Your task to perform on an android device: When is my next meeting? Image 0: 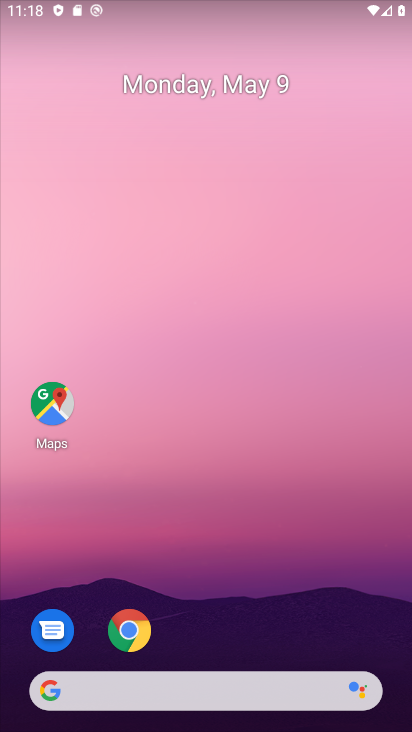
Step 0: drag from (344, 570) to (156, 6)
Your task to perform on an android device: When is my next meeting? Image 1: 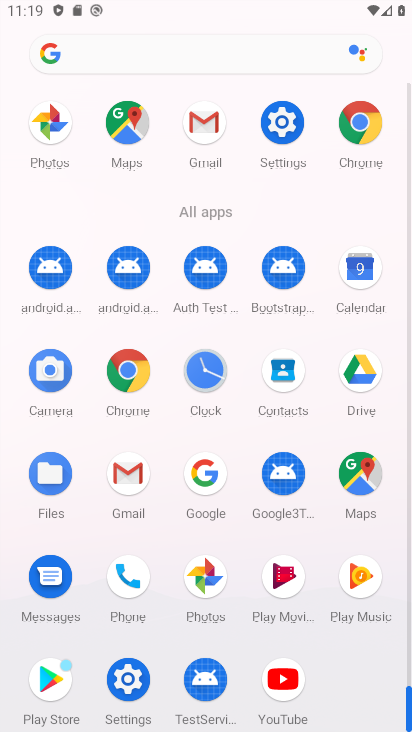
Step 1: drag from (3, 547) to (7, 231)
Your task to perform on an android device: When is my next meeting? Image 2: 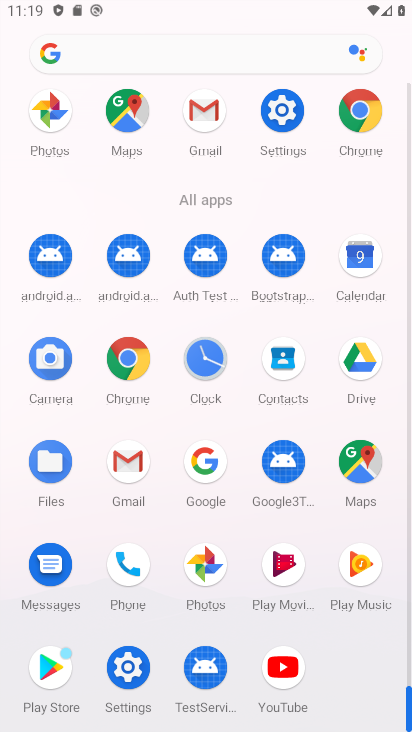
Step 2: drag from (16, 208) to (17, 310)
Your task to perform on an android device: When is my next meeting? Image 3: 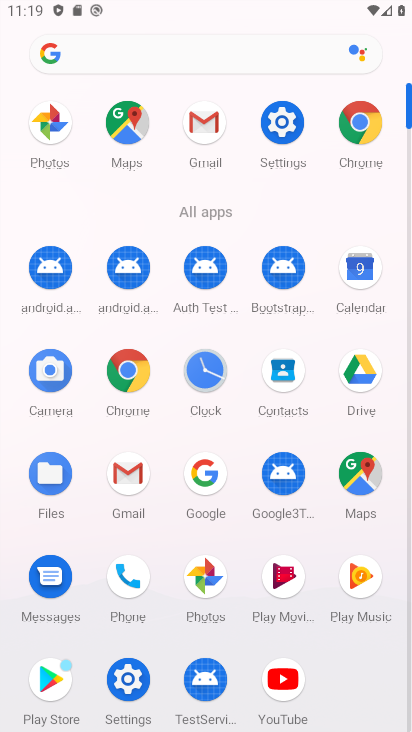
Step 3: click (352, 262)
Your task to perform on an android device: When is my next meeting? Image 4: 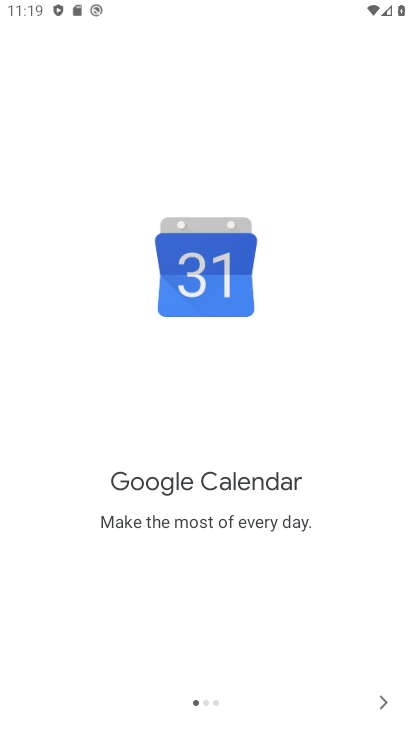
Step 4: click (378, 701)
Your task to perform on an android device: When is my next meeting? Image 5: 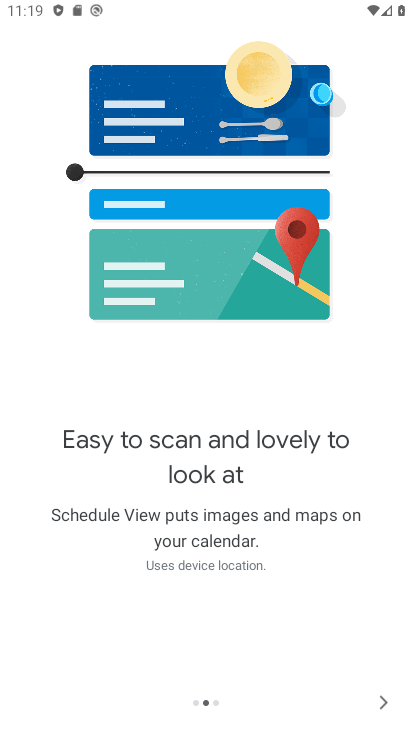
Step 5: click (378, 701)
Your task to perform on an android device: When is my next meeting? Image 6: 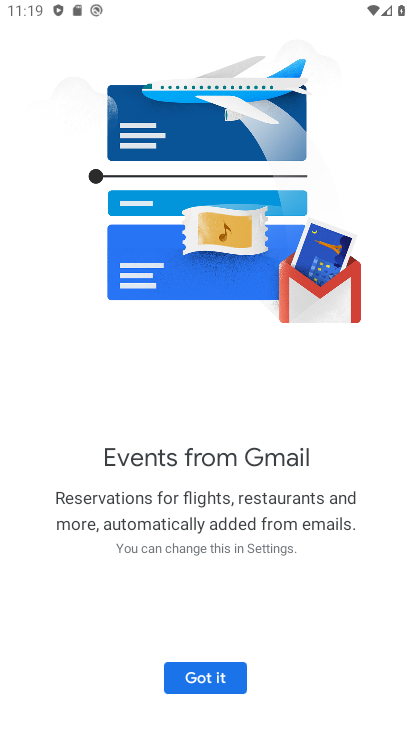
Step 6: click (225, 673)
Your task to perform on an android device: When is my next meeting? Image 7: 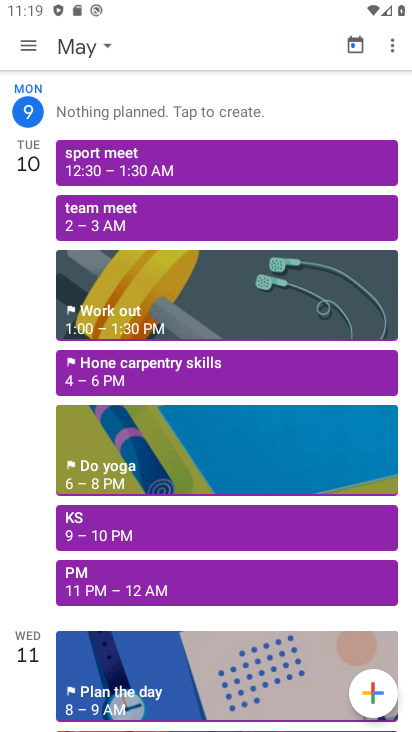
Step 7: click (19, 45)
Your task to perform on an android device: When is my next meeting? Image 8: 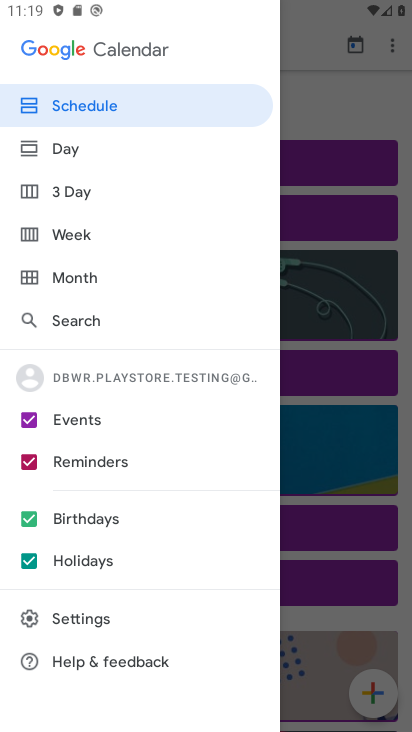
Step 8: click (28, 564)
Your task to perform on an android device: When is my next meeting? Image 9: 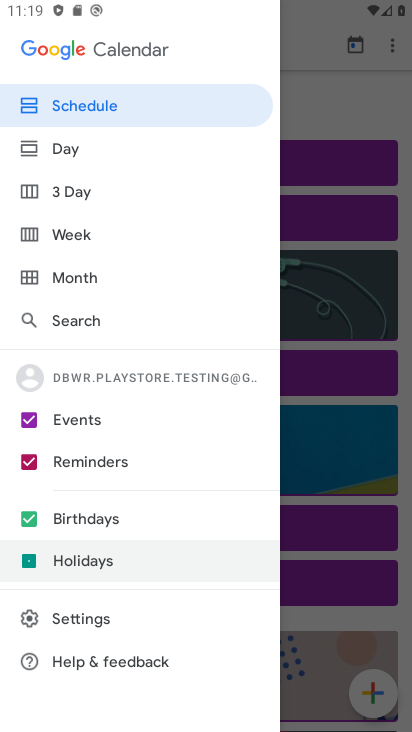
Step 9: click (31, 518)
Your task to perform on an android device: When is my next meeting? Image 10: 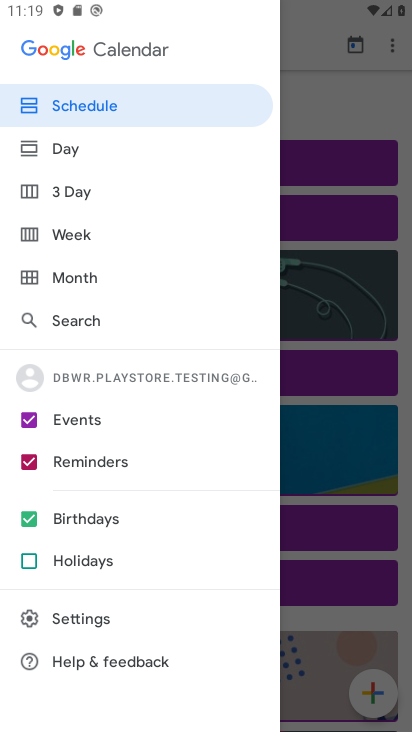
Step 10: click (31, 517)
Your task to perform on an android device: When is my next meeting? Image 11: 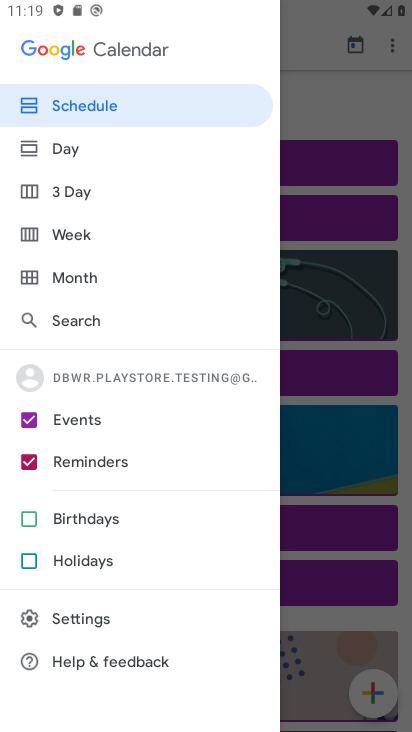
Step 11: click (110, 106)
Your task to perform on an android device: When is my next meeting? Image 12: 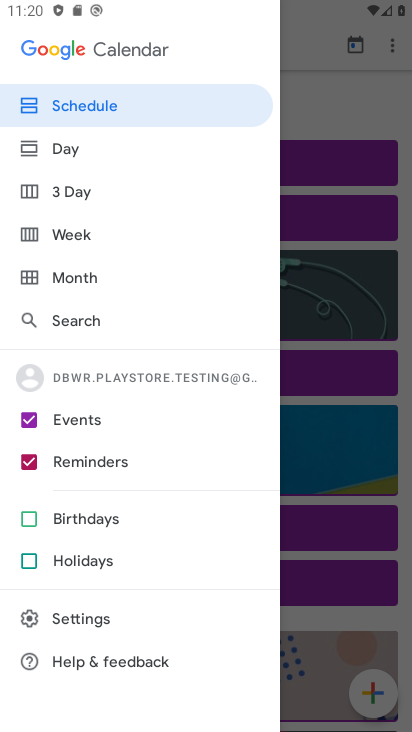
Step 12: click (109, 106)
Your task to perform on an android device: When is my next meeting? Image 13: 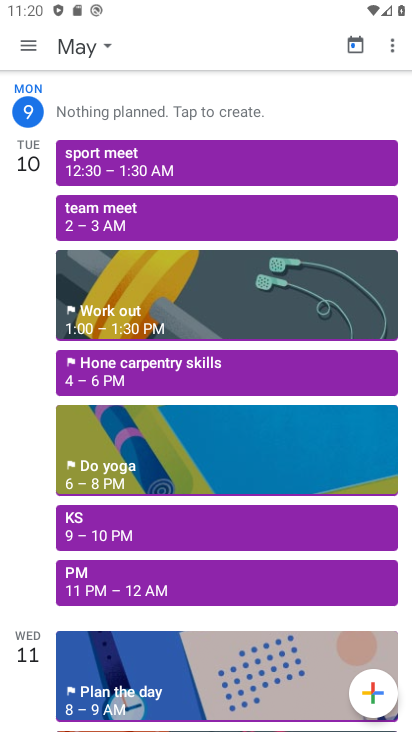
Step 13: task complete